Your task to perform on an android device: turn on priority inbox in the gmail app Image 0: 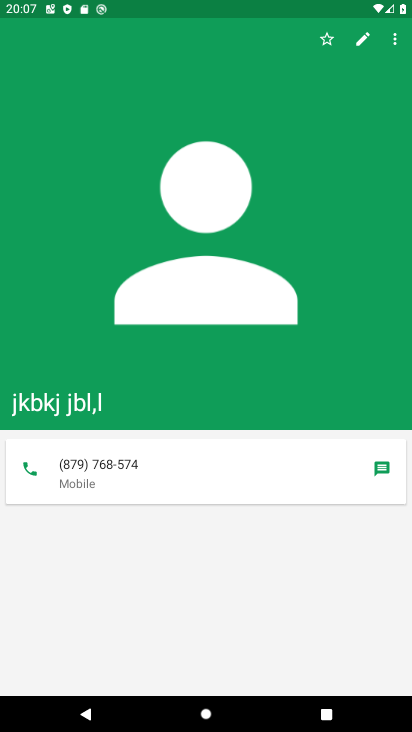
Step 0: press home button
Your task to perform on an android device: turn on priority inbox in the gmail app Image 1: 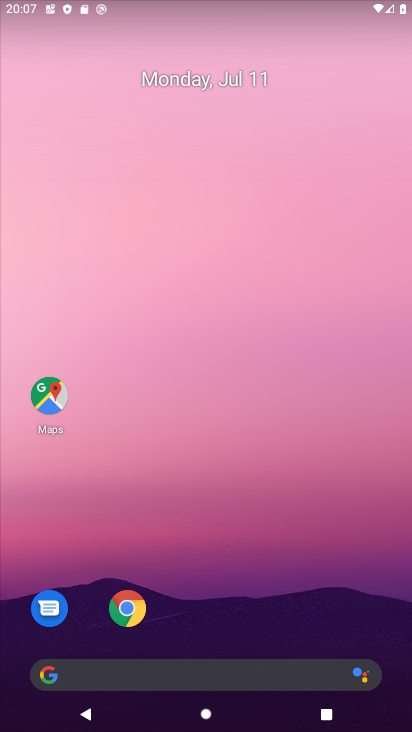
Step 1: drag from (247, 588) to (185, 58)
Your task to perform on an android device: turn on priority inbox in the gmail app Image 2: 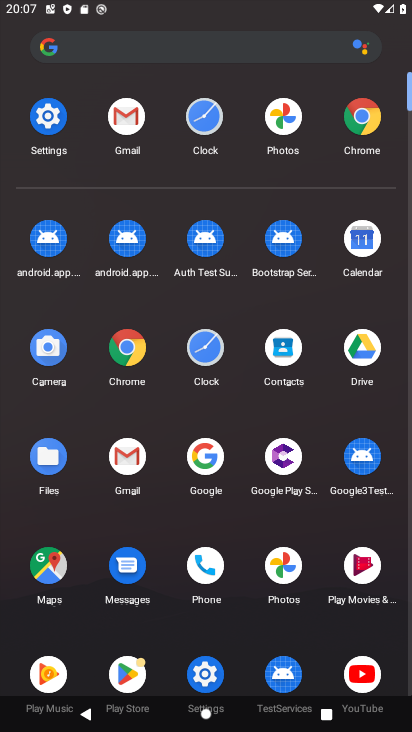
Step 2: click (128, 458)
Your task to perform on an android device: turn on priority inbox in the gmail app Image 3: 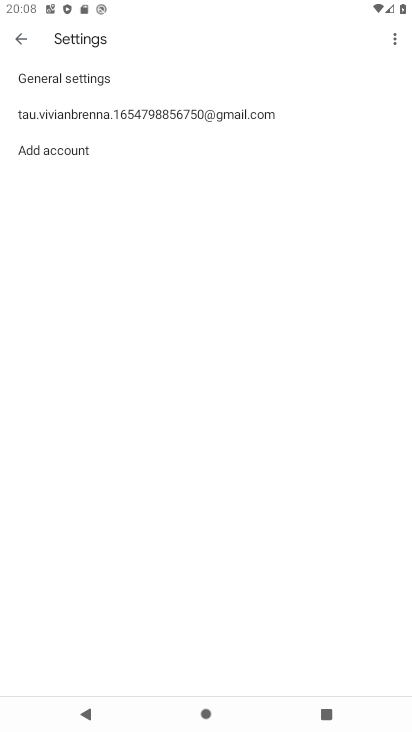
Step 3: click (178, 101)
Your task to perform on an android device: turn on priority inbox in the gmail app Image 4: 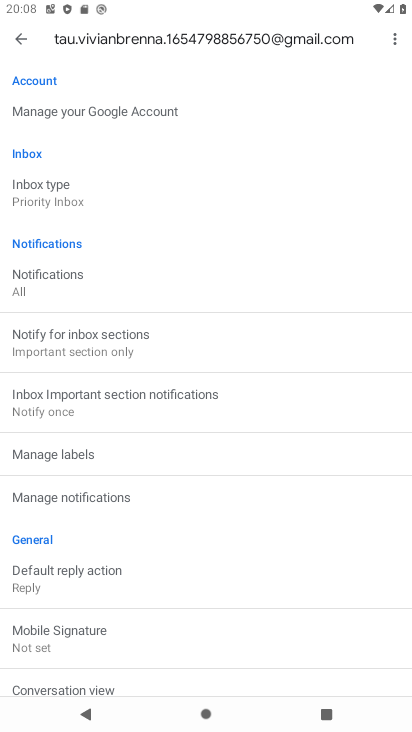
Step 4: task complete